Your task to perform on an android device: Open Android settings Image 0: 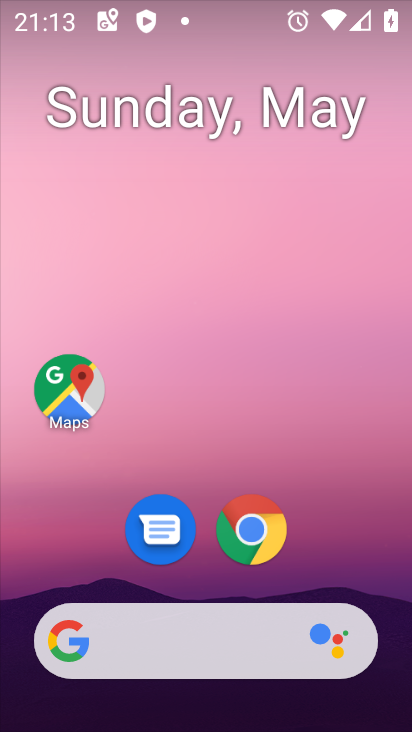
Step 0: drag from (359, 582) to (348, 3)
Your task to perform on an android device: Open Android settings Image 1: 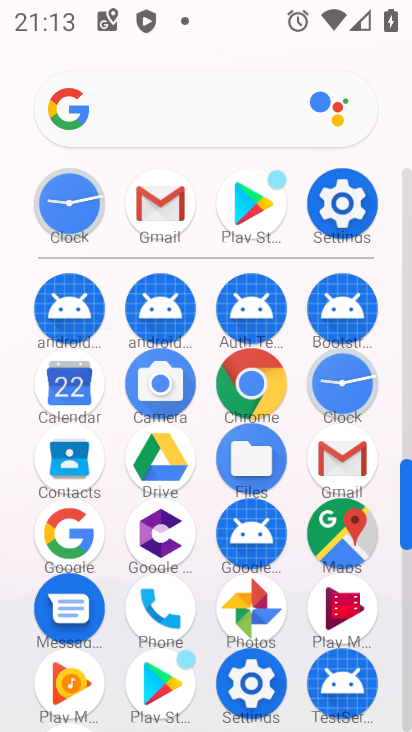
Step 1: click (344, 209)
Your task to perform on an android device: Open Android settings Image 2: 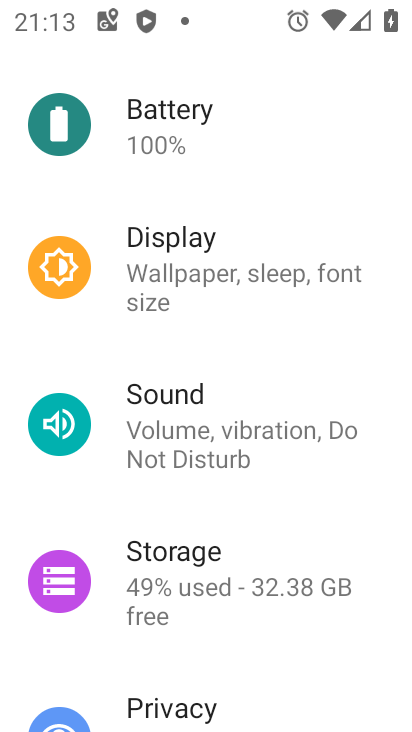
Step 2: task complete